Your task to perform on an android device: turn off priority inbox in the gmail app Image 0: 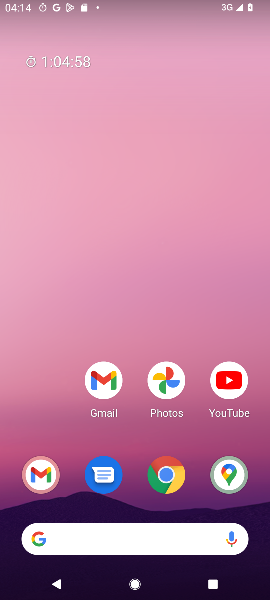
Step 0: press home button
Your task to perform on an android device: turn off priority inbox in the gmail app Image 1: 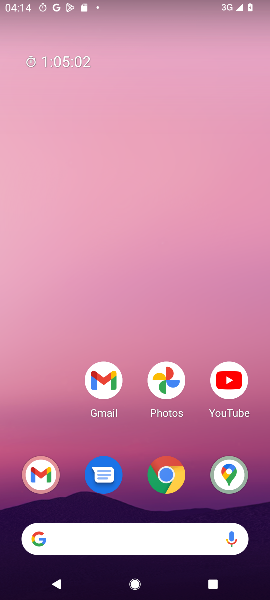
Step 1: drag from (56, 420) to (49, 153)
Your task to perform on an android device: turn off priority inbox in the gmail app Image 2: 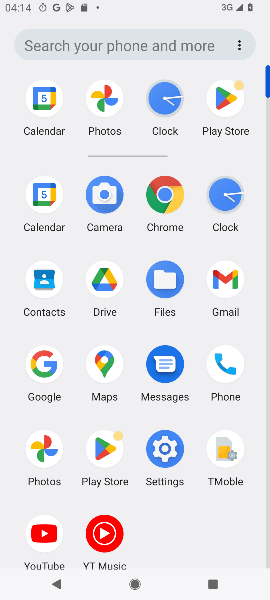
Step 2: click (225, 283)
Your task to perform on an android device: turn off priority inbox in the gmail app Image 3: 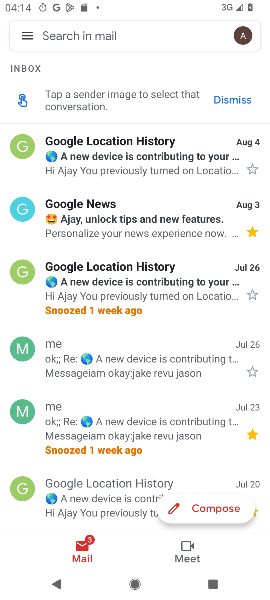
Step 3: click (28, 33)
Your task to perform on an android device: turn off priority inbox in the gmail app Image 4: 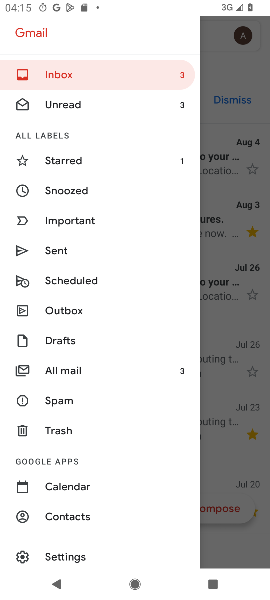
Step 4: click (75, 553)
Your task to perform on an android device: turn off priority inbox in the gmail app Image 5: 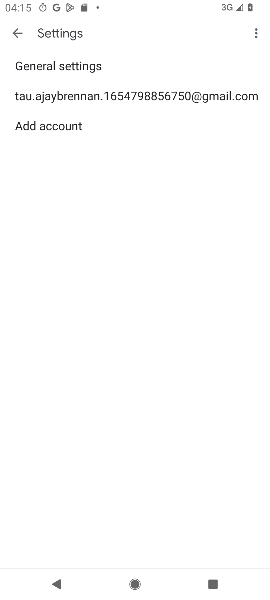
Step 5: click (112, 95)
Your task to perform on an android device: turn off priority inbox in the gmail app Image 6: 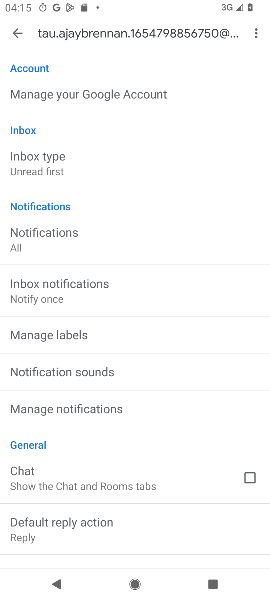
Step 6: task complete